Your task to perform on an android device: check google app version Image 0: 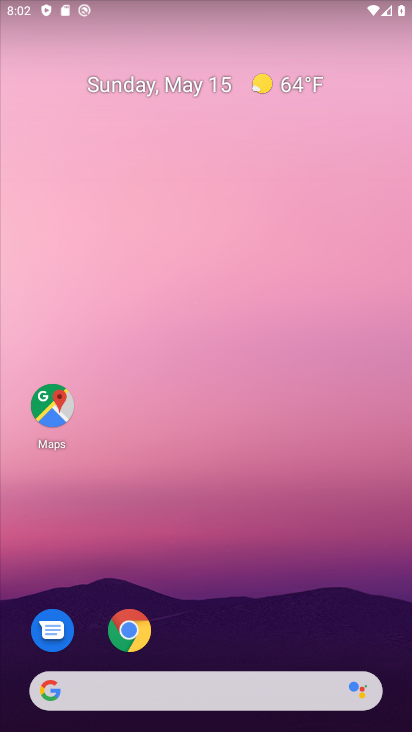
Step 0: drag from (332, 494) to (164, 7)
Your task to perform on an android device: check google app version Image 1: 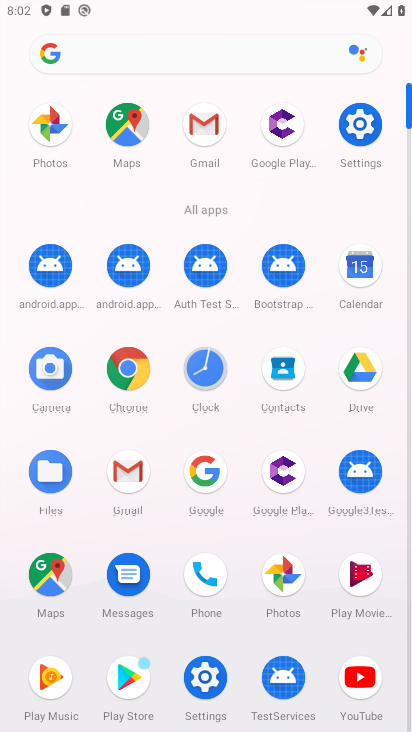
Step 1: click (203, 455)
Your task to perform on an android device: check google app version Image 2: 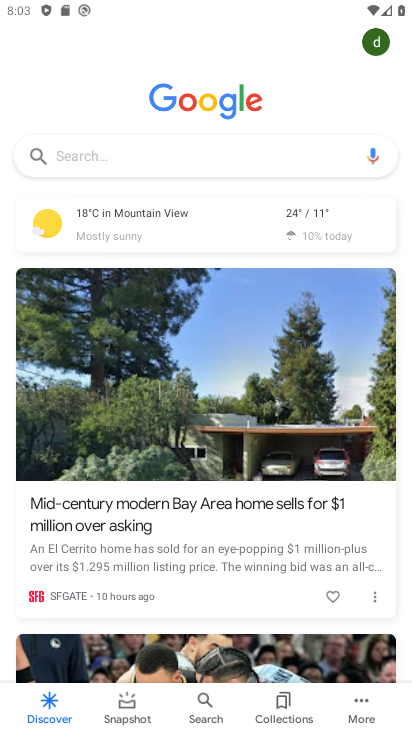
Step 2: click (354, 716)
Your task to perform on an android device: check google app version Image 3: 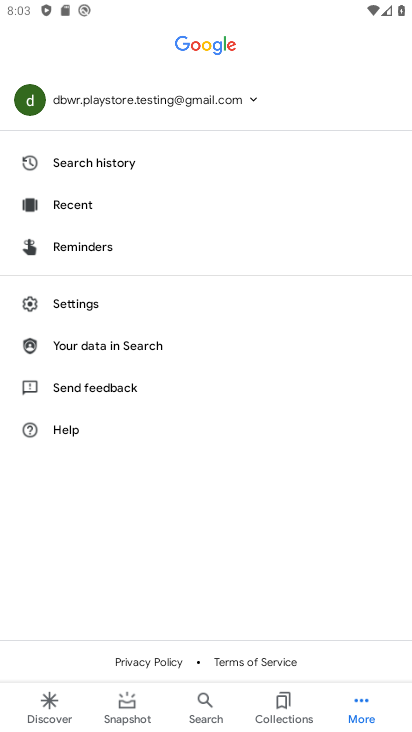
Step 3: click (62, 305)
Your task to perform on an android device: check google app version Image 4: 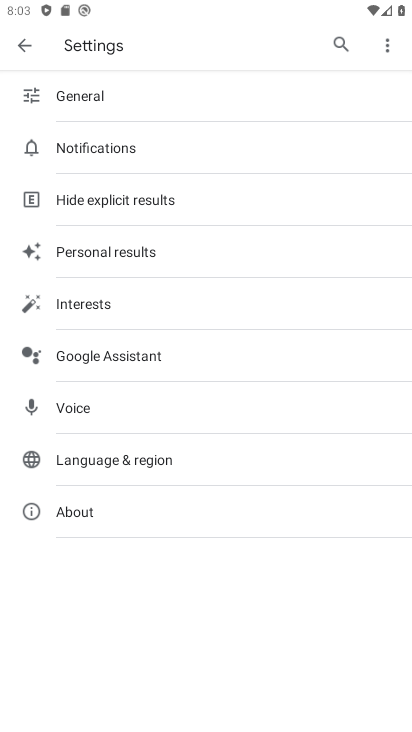
Step 4: click (101, 507)
Your task to perform on an android device: check google app version Image 5: 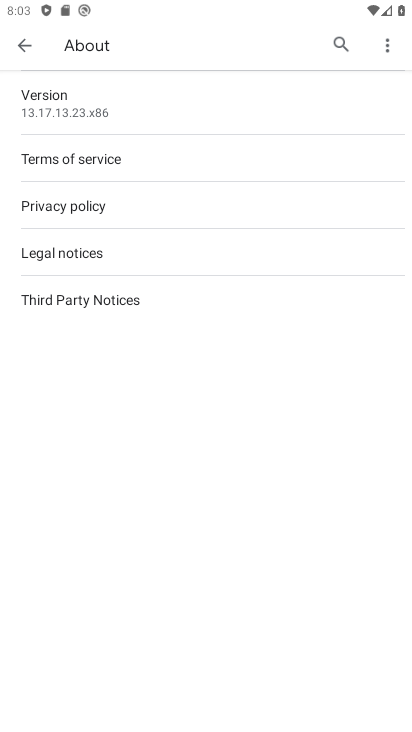
Step 5: click (29, 108)
Your task to perform on an android device: check google app version Image 6: 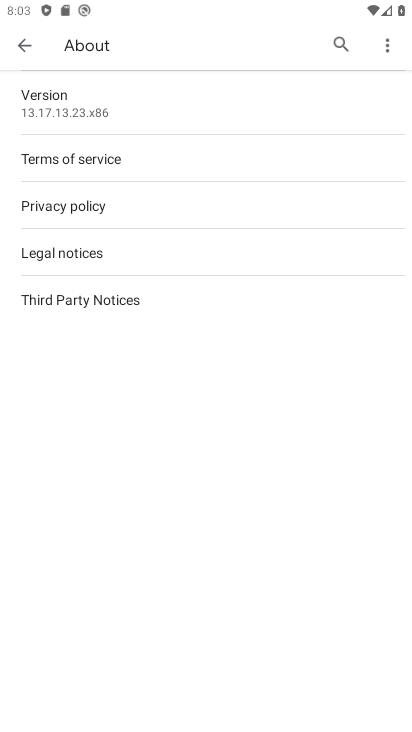
Step 6: task complete